Your task to perform on an android device: turn off wifi Image 0: 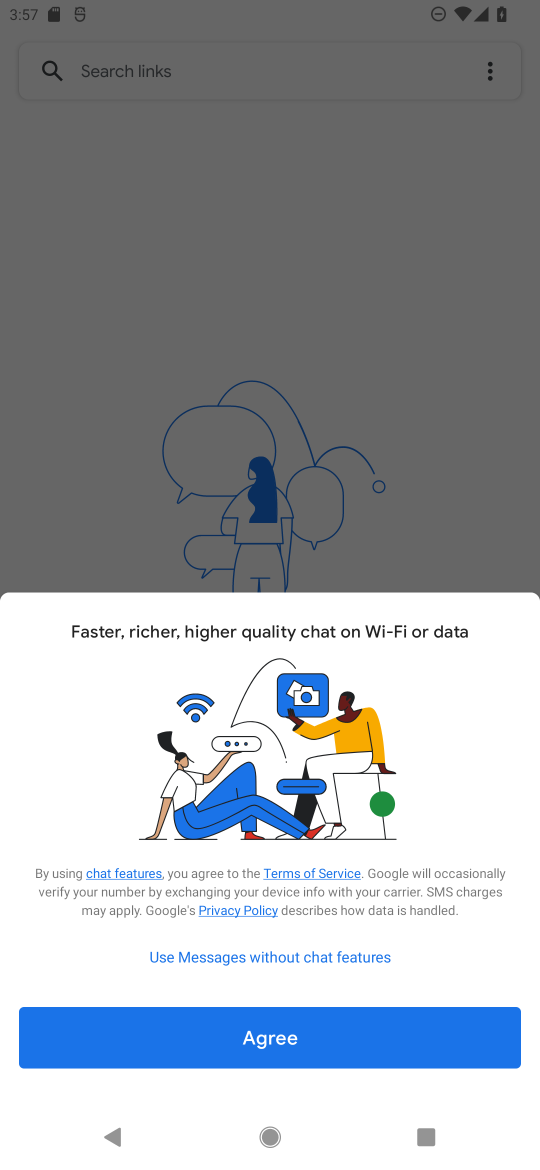
Step 0: press home button
Your task to perform on an android device: turn off wifi Image 1: 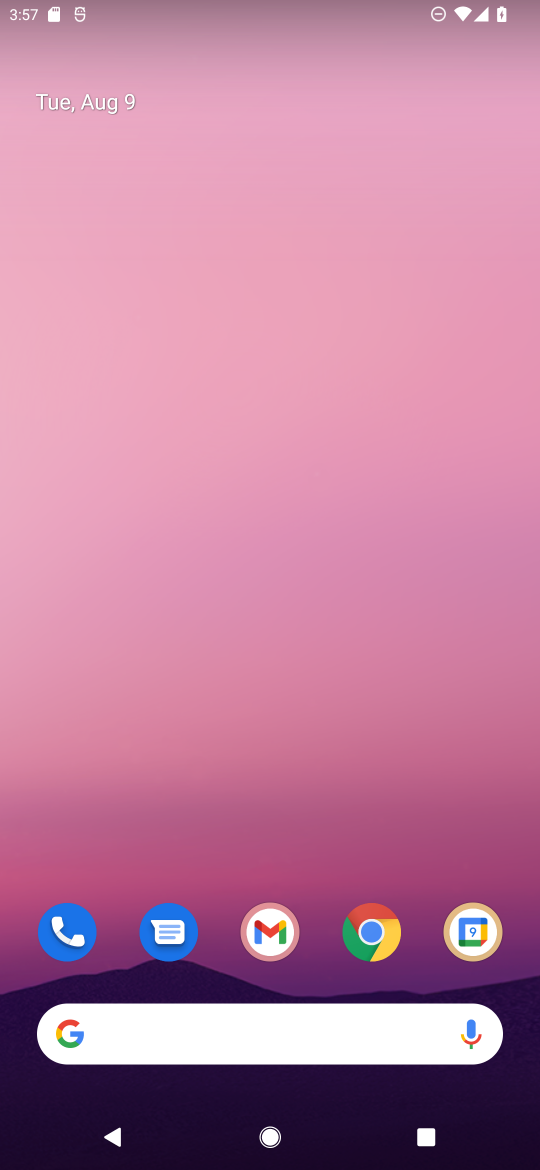
Step 1: drag from (24, 1138) to (353, 435)
Your task to perform on an android device: turn off wifi Image 2: 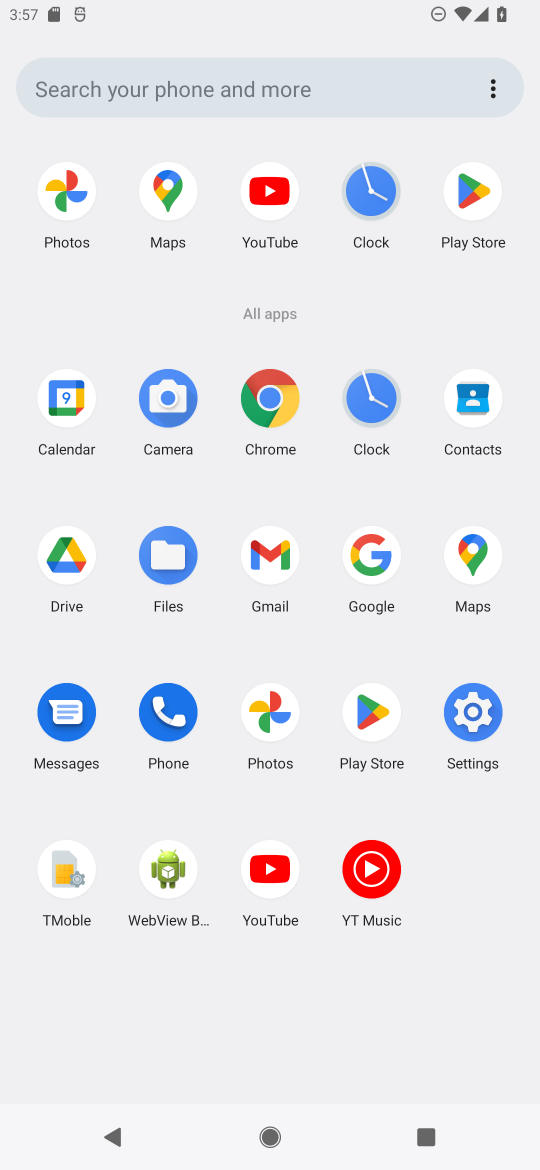
Step 2: click (497, 718)
Your task to perform on an android device: turn off wifi Image 3: 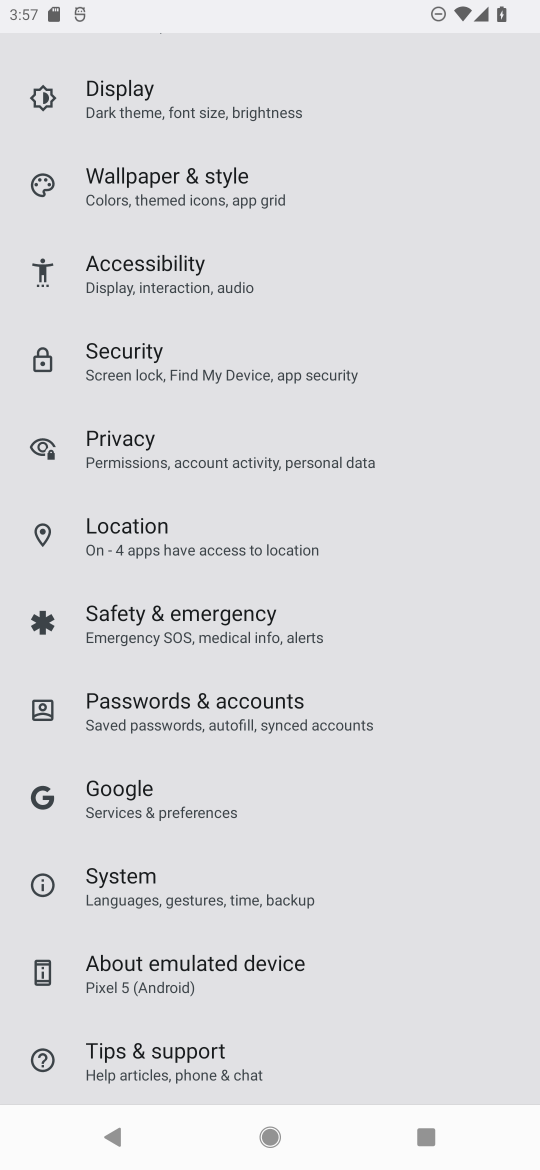
Step 3: drag from (351, 68) to (369, 706)
Your task to perform on an android device: turn off wifi Image 4: 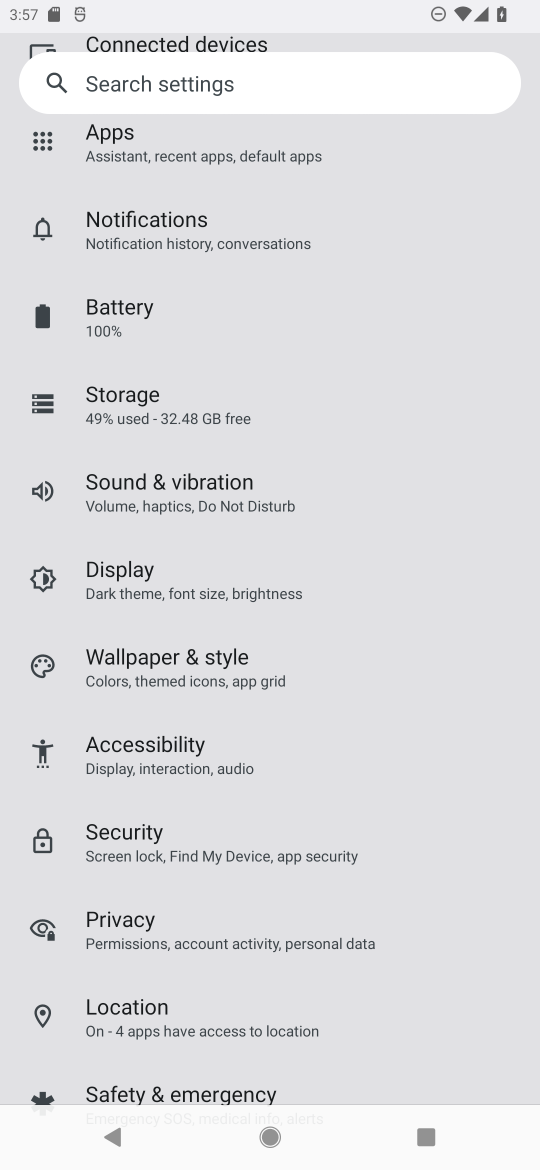
Step 4: drag from (371, 152) to (415, 693)
Your task to perform on an android device: turn off wifi Image 5: 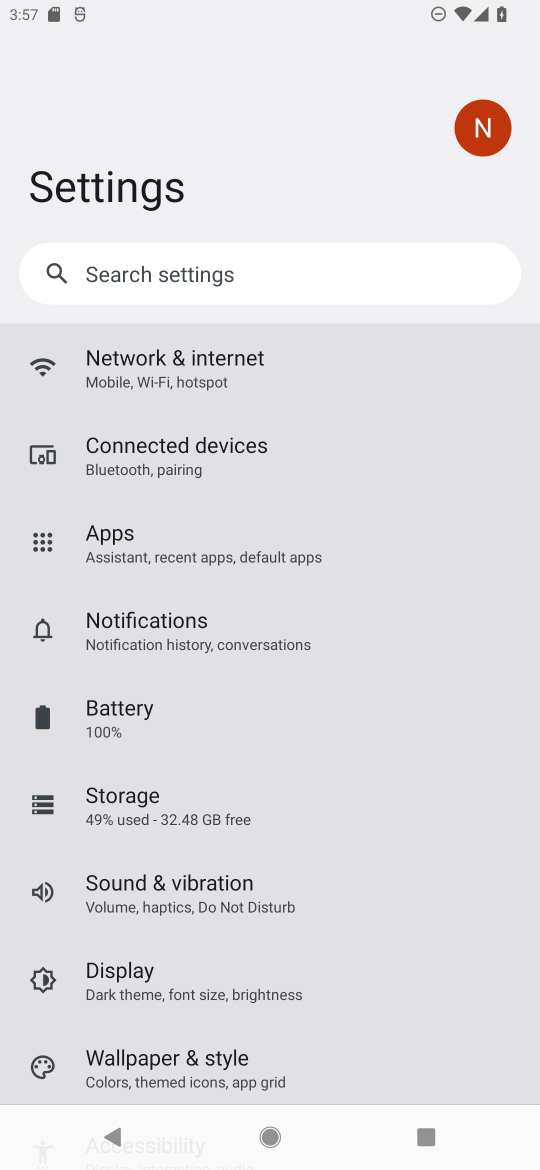
Step 5: click (210, 390)
Your task to perform on an android device: turn off wifi Image 6: 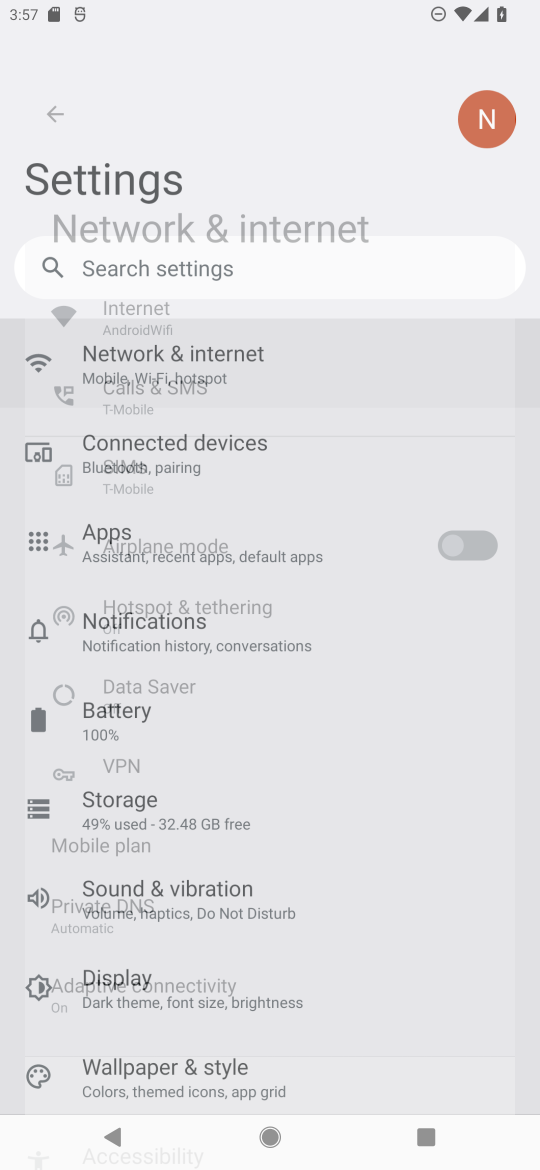
Step 6: click (207, 366)
Your task to perform on an android device: turn off wifi Image 7: 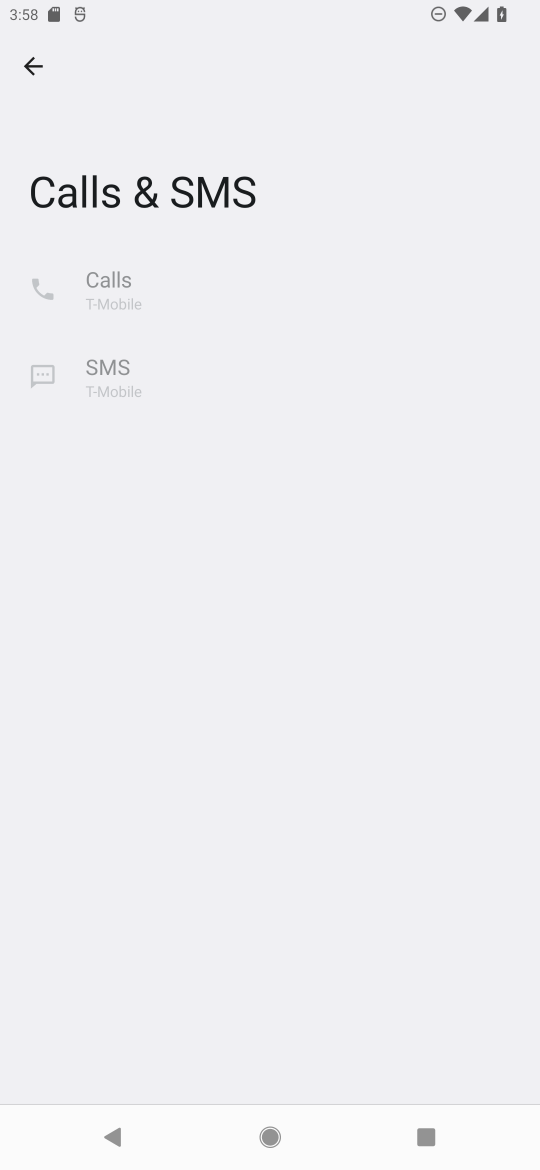
Step 7: click (42, 65)
Your task to perform on an android device: turn off wifi Image 8: 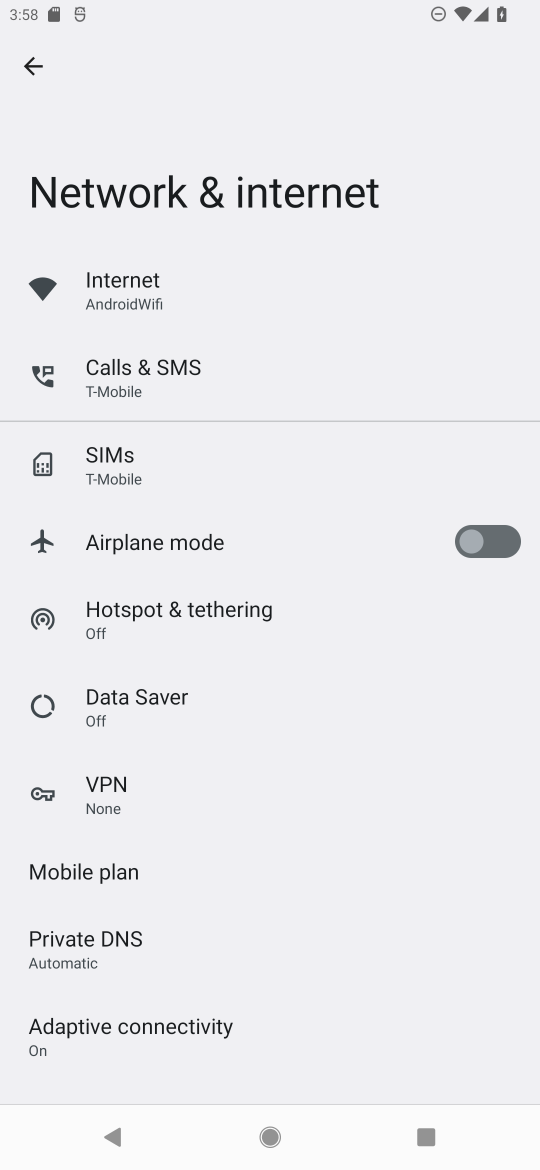
Step 8: click (136, 284)
Your task to perform on an android device: turn off wifi Image 9: 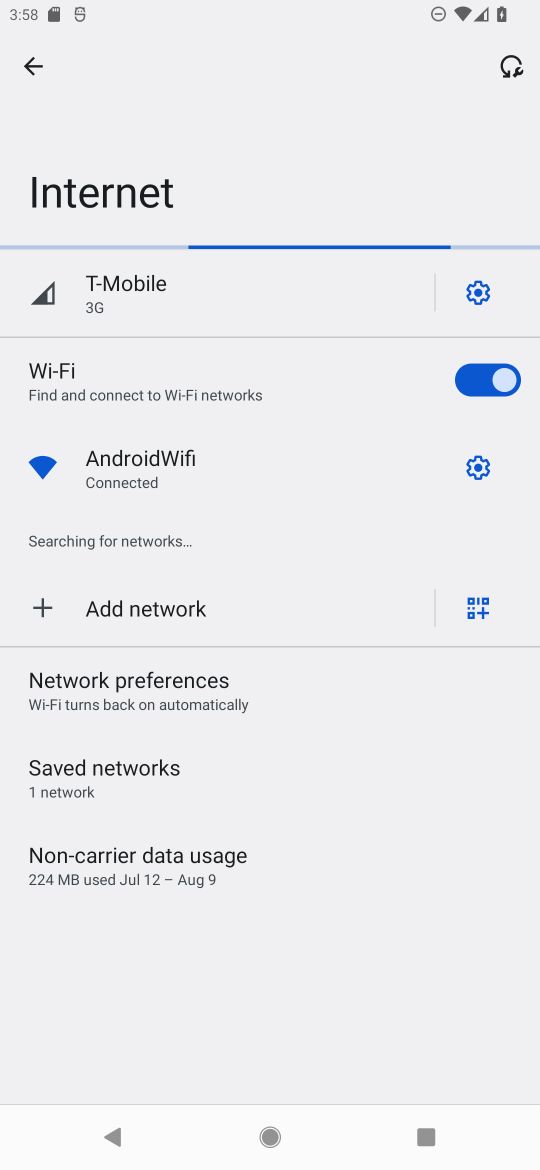
Step 9: task complete